Your task to perform on an android device: turn off data saver in the chrome app Image 0: 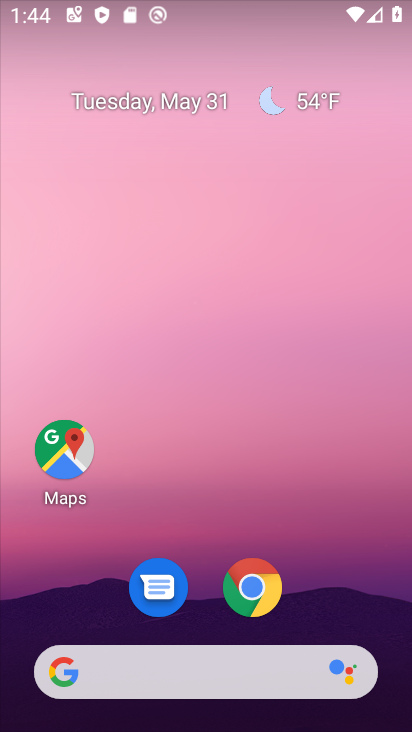
Step 0: click (346, 7)
Your task to perform on an android device: turn off data saver in the chrome app Image 1: 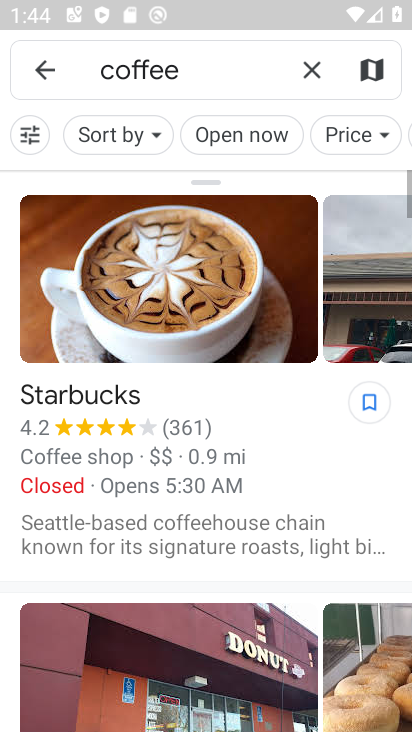
Step 1: click (360, 548)
Your task to perform on an android device: turn off data saver in the chrome app Image 2: 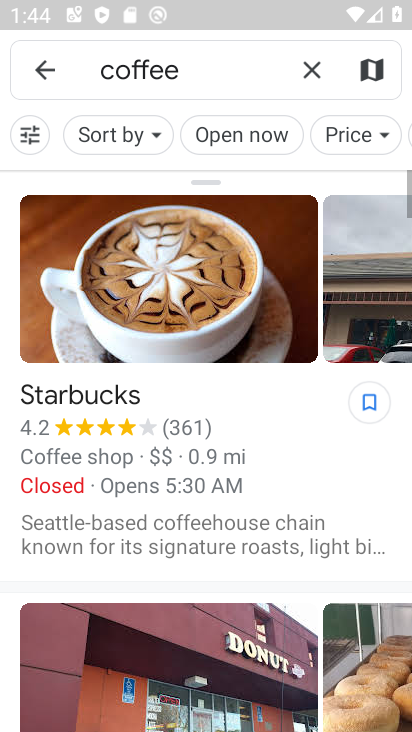
Step 2: drag from (213, 577) to (359, 34)
Your task to perform on an android device: turn off data saver in the chrome app Image 3: 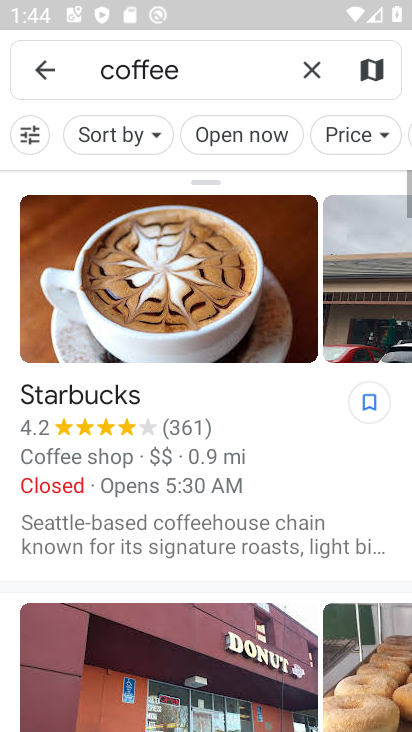
Step 3: press back button
Your task to perform on an android device: turn off data saver in the chrome app Image 4: 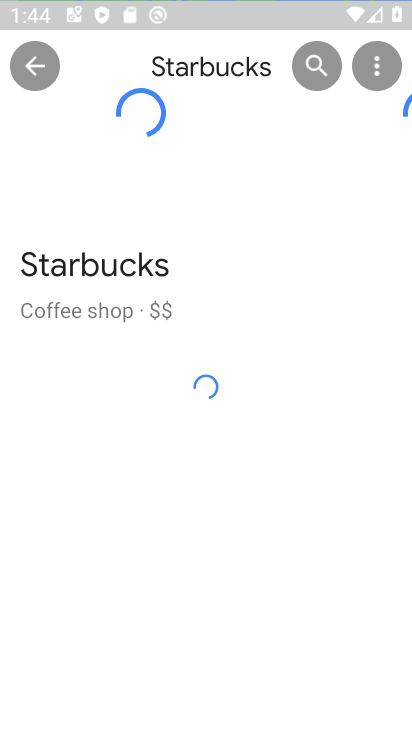
Step 4: press home button
Your task to perform on an android device: turn off data saver in the chrome app Image 5: 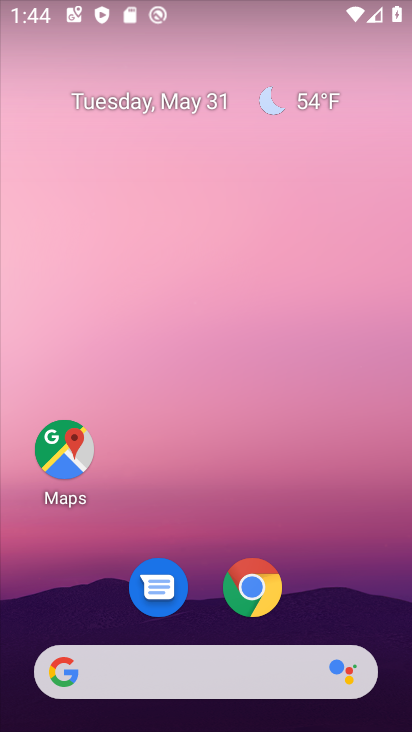
Step 5: drag from (203, 637) to (233, 134)
Your task to perform on an android device: turn off data saver in the chrome app Image 6: 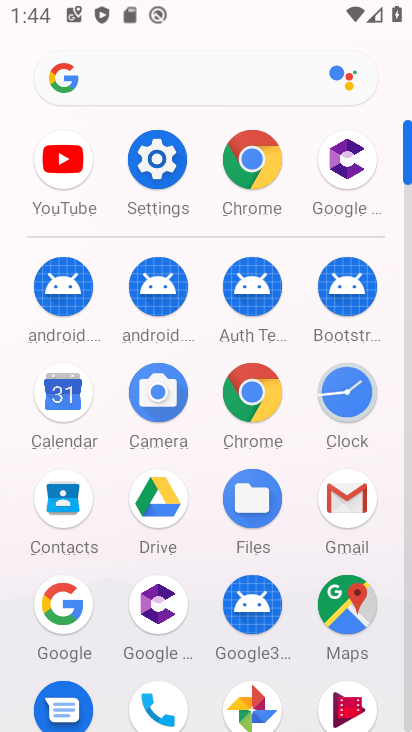
Step 6: click (255, 390)
Your task to perform on an android device: turn off data saver in the chrome app Image 7: 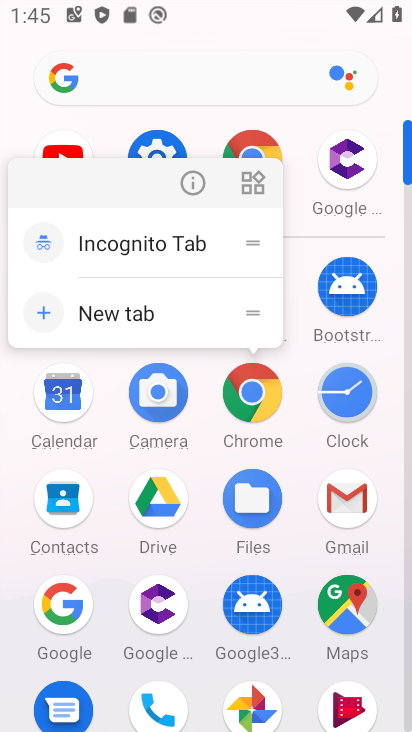
Step 7: click (190, 173)
Your task to perform on an android device: turn off data saver in the chrome app Image 8: 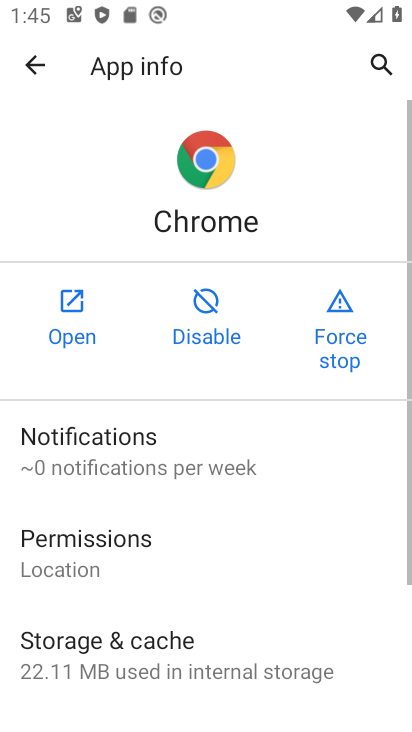
Step 8: click (57, 328)
Your task to perform on an android device: turn off data saver in the chrome app Image 9: 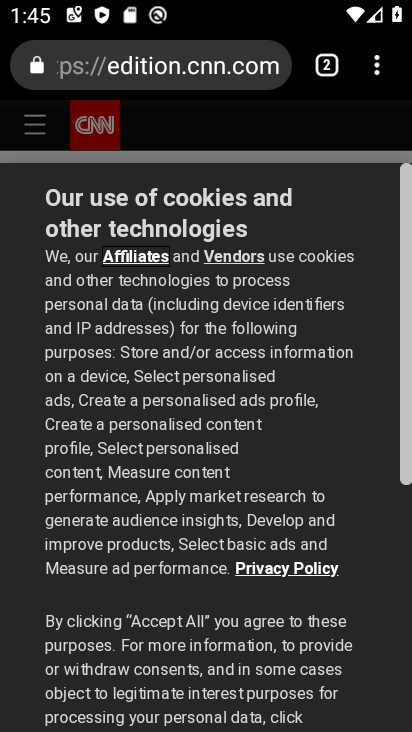
Step 9: drag from (372, 56) to (160, 637)
Your task to perform on an android device: turn off data saver in the chrome app Image 10: 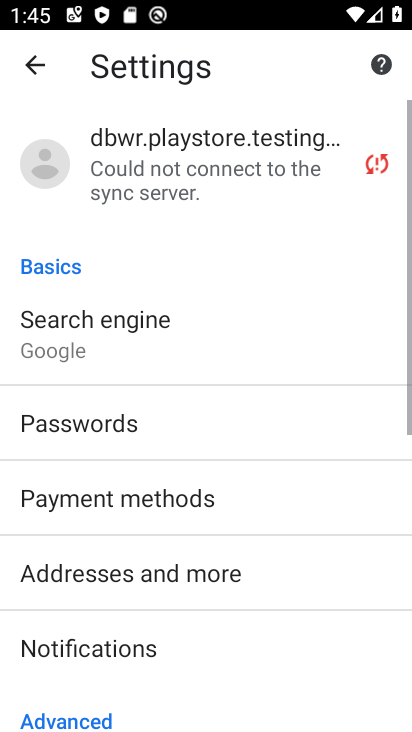
Step 10: drag from (217, 529) to (277, 102)
Your task to perform on an android device: turn off data saver in the chrome app Image 11: 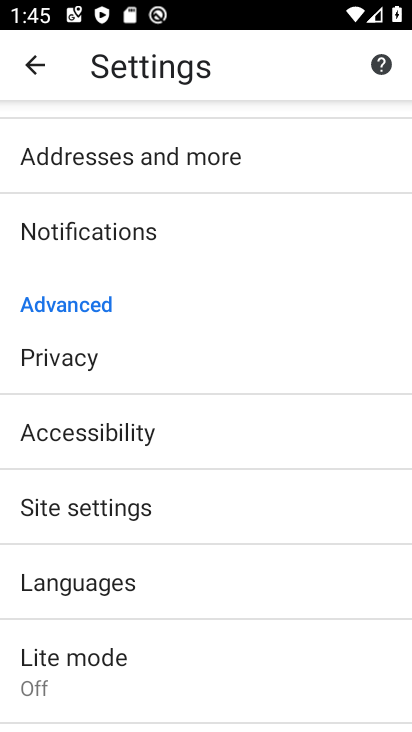
Step 11: click (96, 632)
Your task to perform on an android device: turn off data saver in the chrome app Image 12: 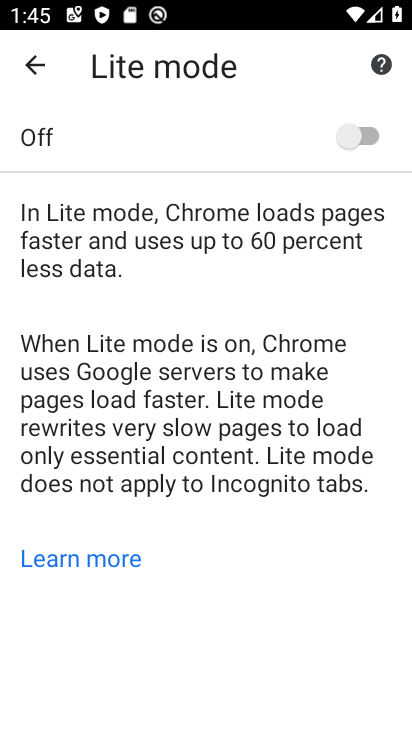
Step 12: task complete